Your task to perform on an android device: toggle show notifications on the lock screen Image 0: 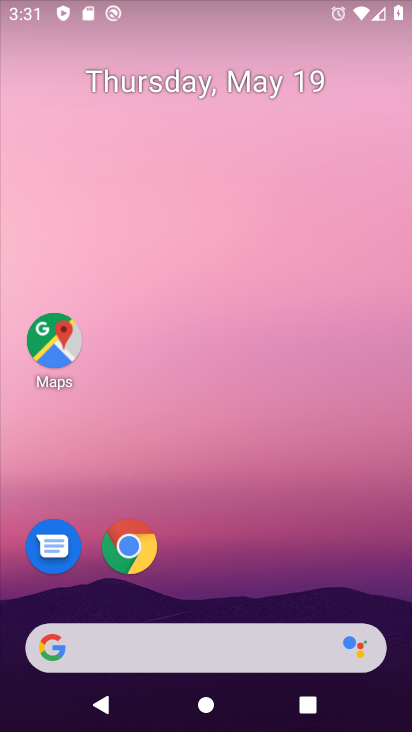
Step 0: press home button
Your task to perform on an android device: toggle show notifications on the lock screen Image 1: 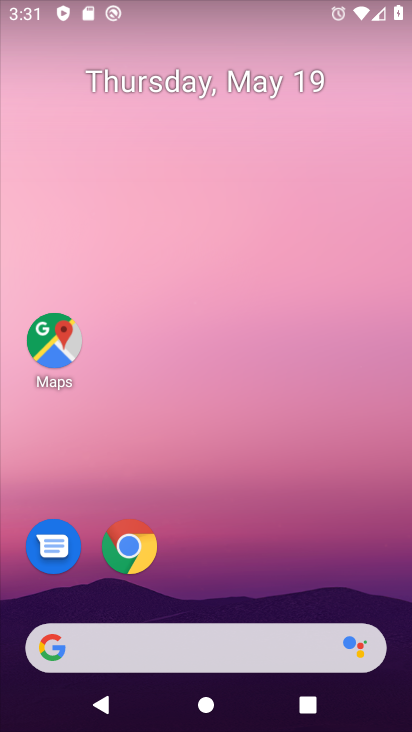
Step 1: drag from (225, 604) to (241, 94)
Your task to perform on an android device: toggle show notifications on the lock screen Image 2: 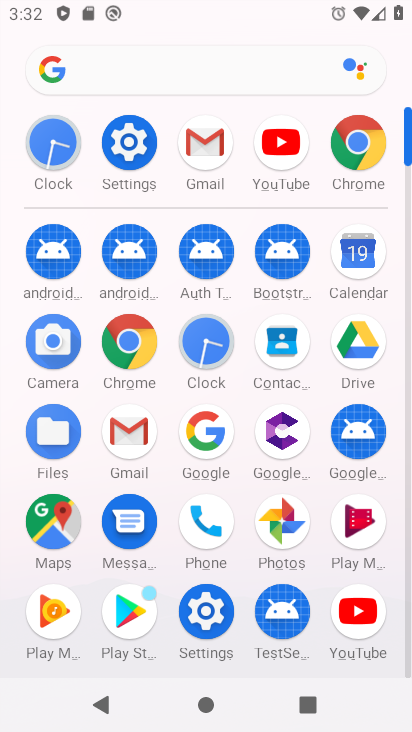
Step 2: click (206, 608)
Your task to perform on an android device: toggle show notifications on the lock screen Image 3: 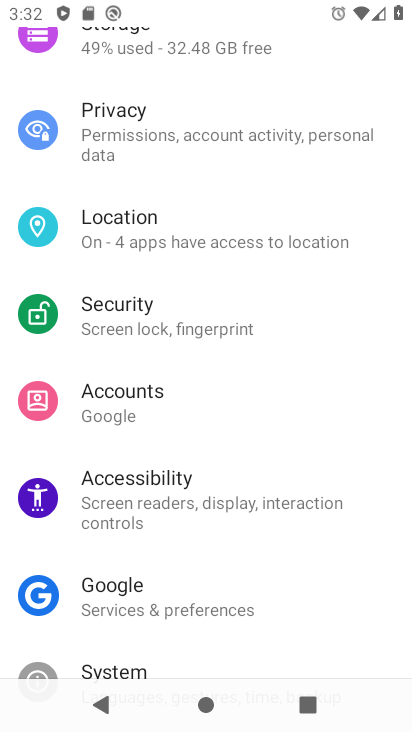
Step 3: drag from (182, 647) to (214, 165)
Your task to perform on an android device: toggle show notifications on the lock screen Image 4: 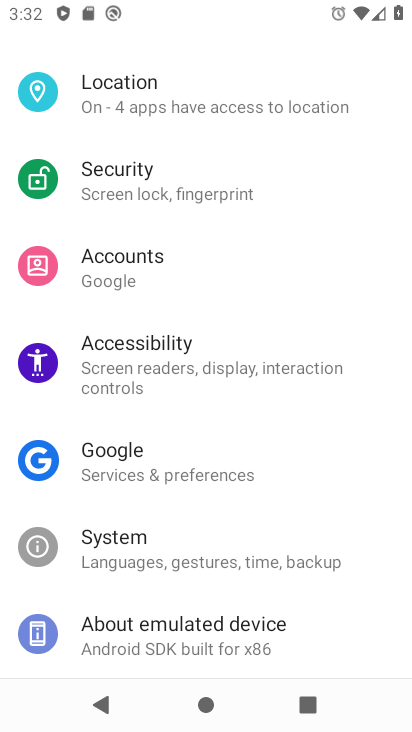
Step 4: drag from (188, 103) to (180, 686)
Your task to perform on an android device: toggle show notifications on the lock screen Image 5: 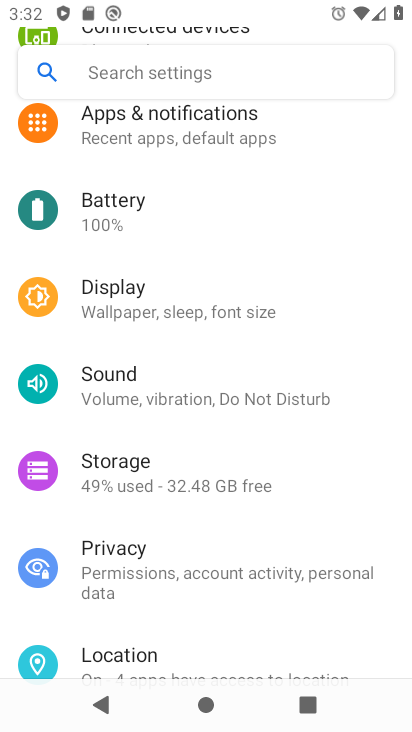
Step 5: click (187, 136)
Your task to perform on an android device: toggle show notifications on the lock screen Image 6: 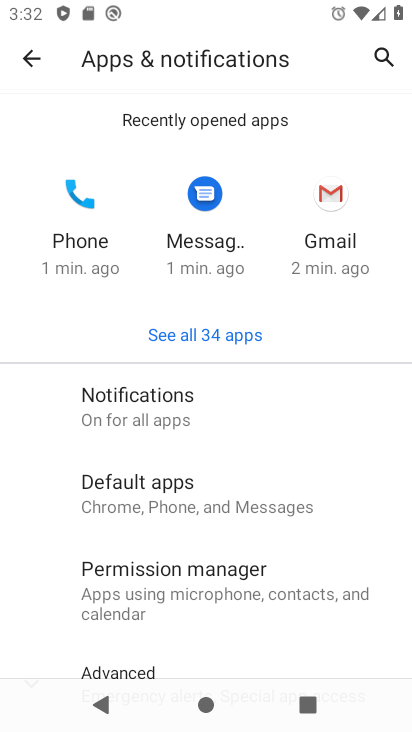
Step 6: click (202, 405)
Your task to perform on an android device: toggle show notifications on the lock screen Image 7: 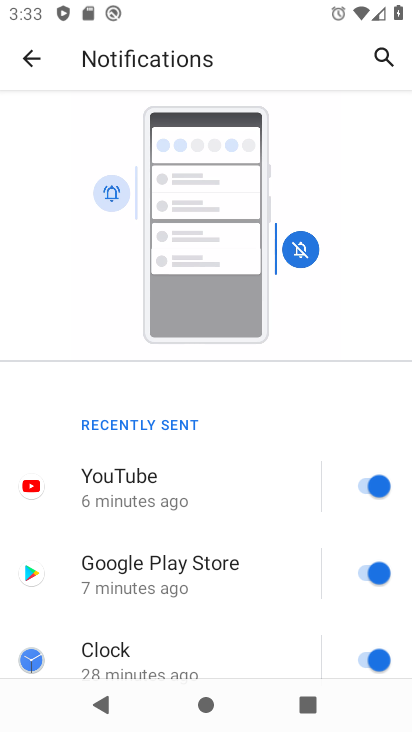
Step 7: drag from (236, 625) to (217, 166)
Your task to perform on an android device: toggle show notifications on the lock screen Image 8: 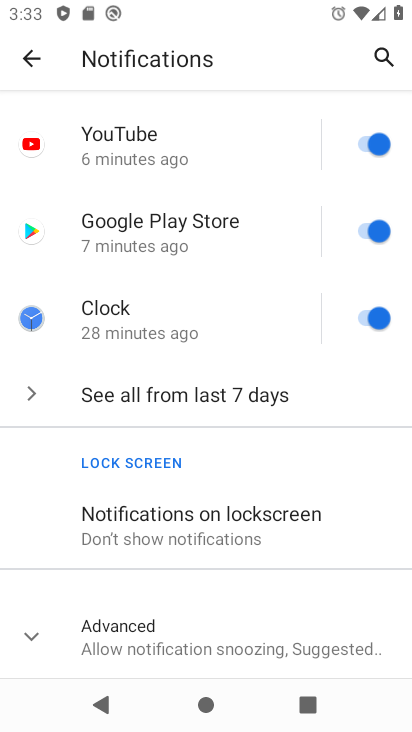
Step 8: click (285, 529)
Your task to perform on an android device: toggle show notifications on the lock screen Image 9: 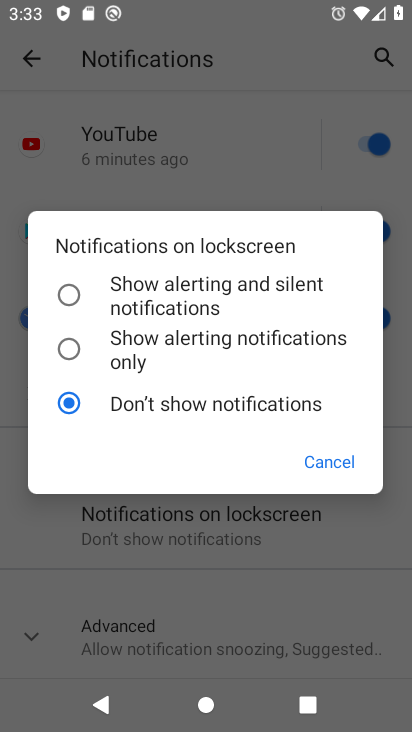
Step 9: click (59, 292)
Your task to perform on an android device: toggle show notifications on the lock screen Image 10: 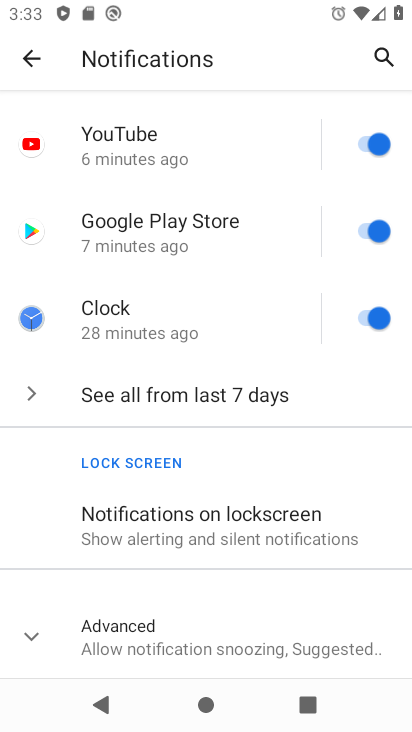
Step 10: task complete